Your task to perform on an android device: Clear the cart on target. Image 0: 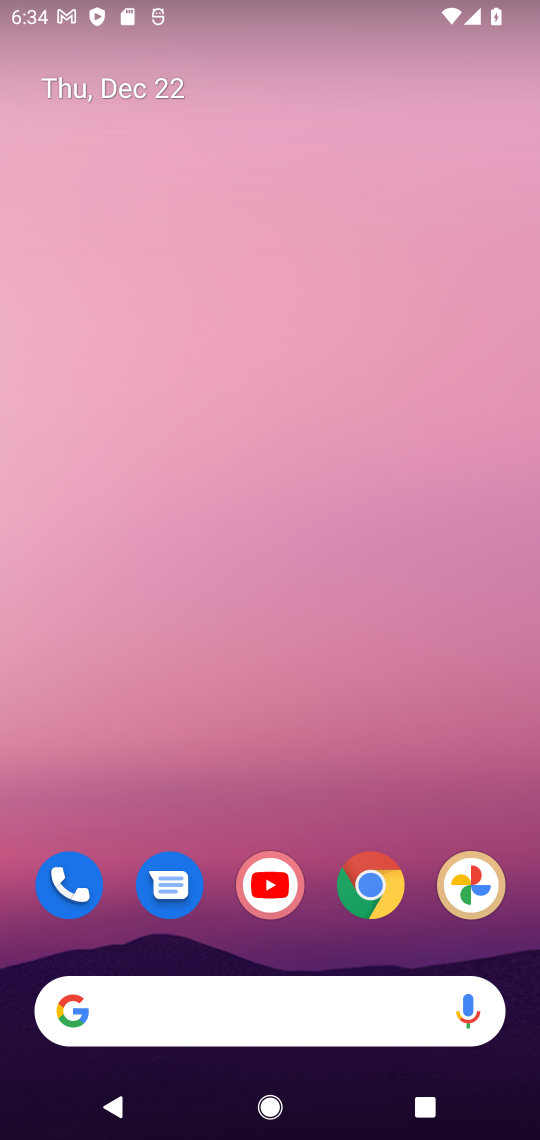
Step 0: click (381, 894)
Your task to perform on an android device: Clear the cart on target. Image 1: 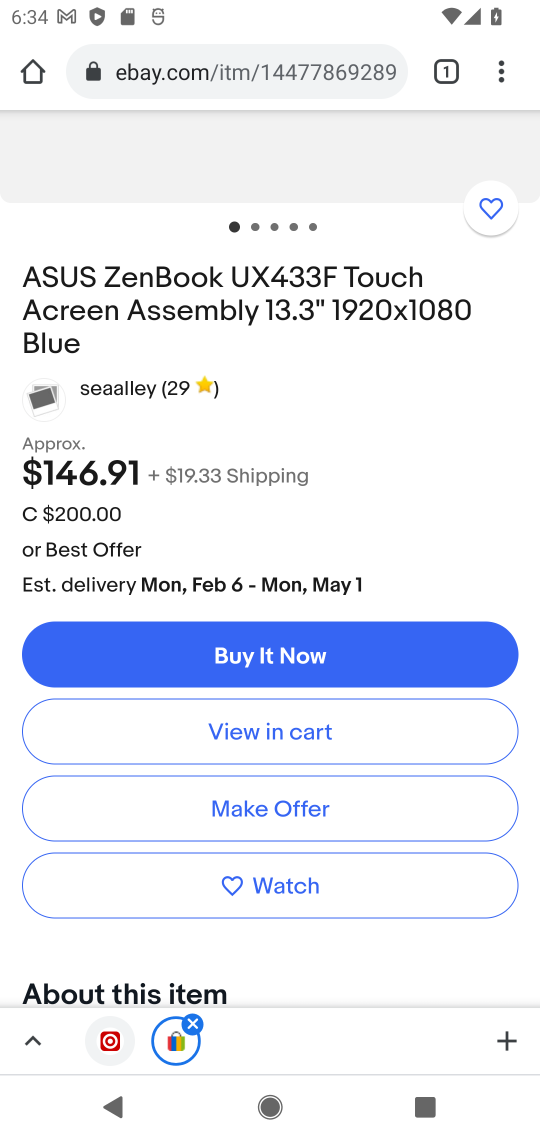
Step 1: click (214, 76)
Your task to perform on an android device: Clear the cart on target. Image 2: 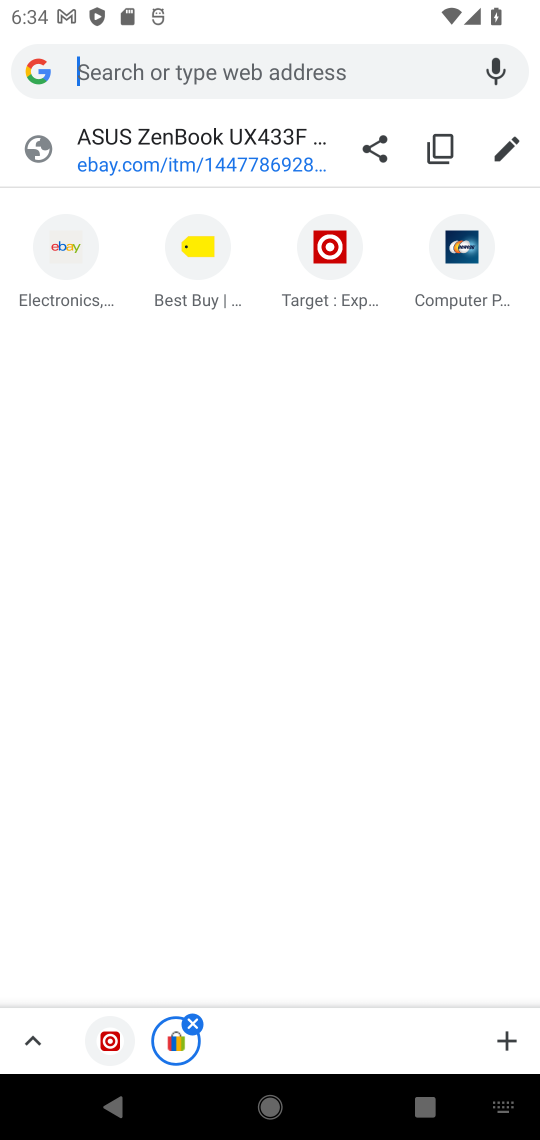
Step 2: click (330, 276)
Your task to perform on an android device: Clear the cart on target. Image 3: 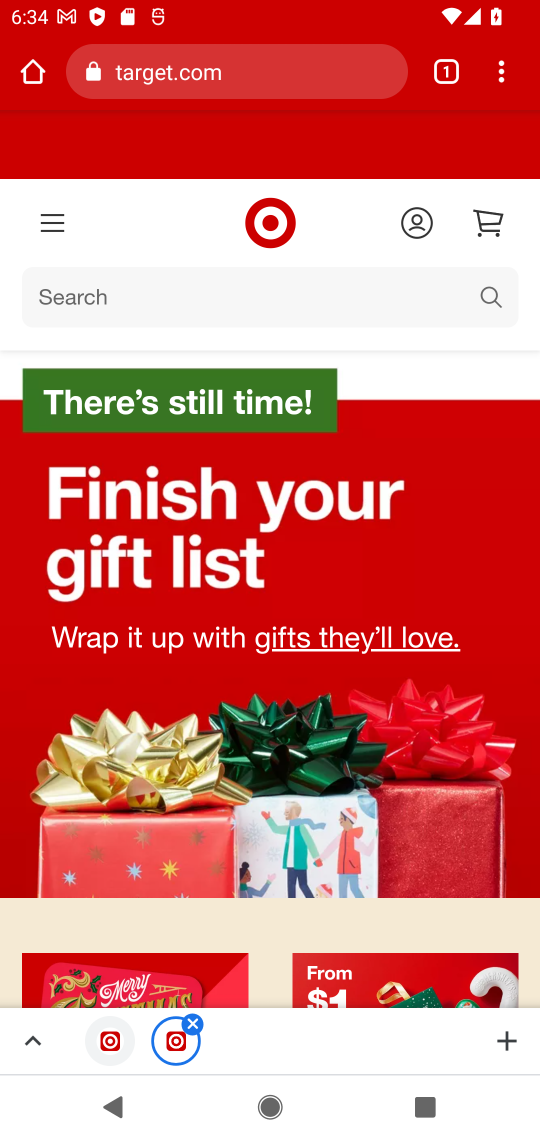
Step 3: click (477, 226)
Your task to perform on an android device: Clear the cart on target. Image 4: 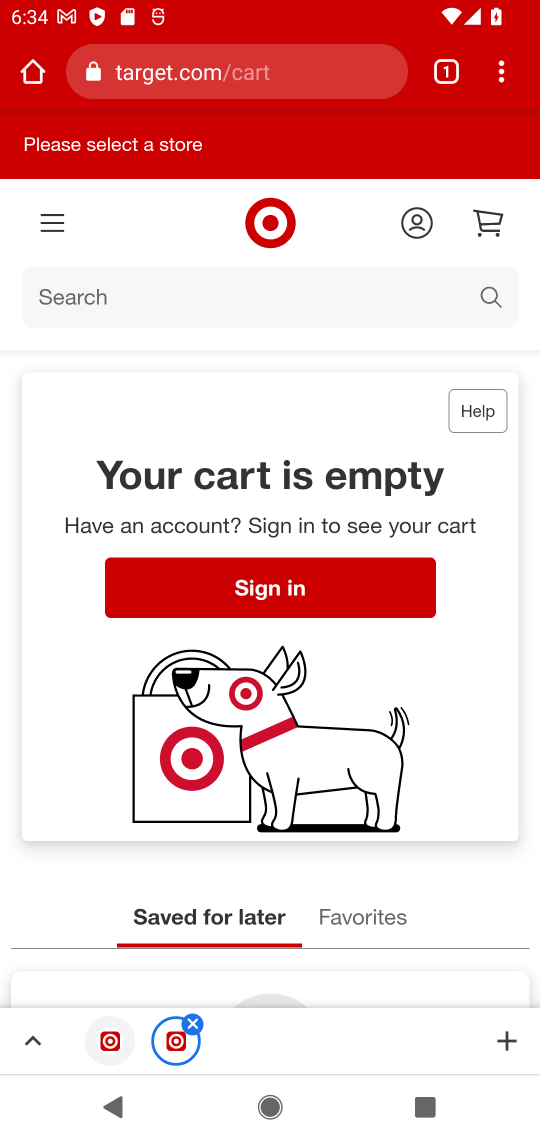
Step 4: task complete